Your task to perform on an android device: Clear the shopping cart on newegg. Add logitech g pro to the cart on newegg, then select checkout. Image 0: 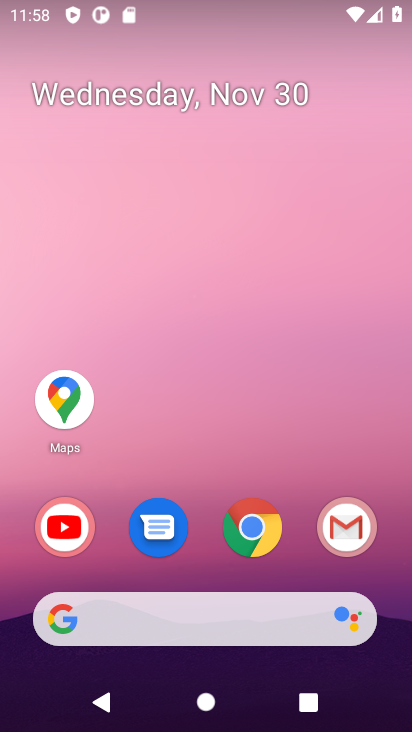
Step 0: click (254, 530)
Your task to perform on an android device: Clear the shopping cart on newegg. Add logitech g pro to the cart on newegg, then select checkout. Image 1: 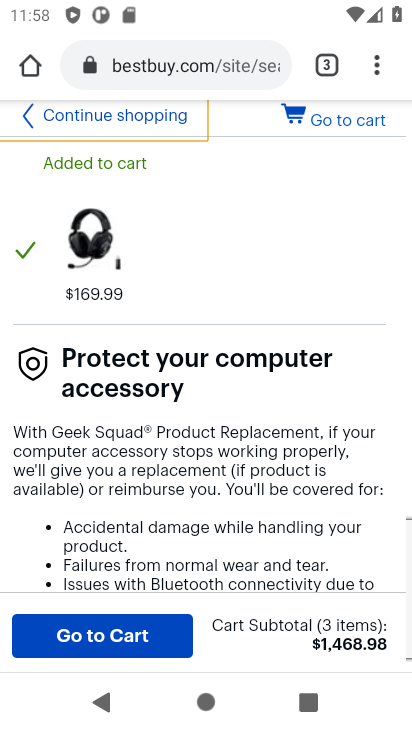
Step 1: click (190, 67)
Your task to perform on an android device: Clear the shopping cart on newegg. Add logitech g pro to the cart on newegg, then select checkout. Image 2: 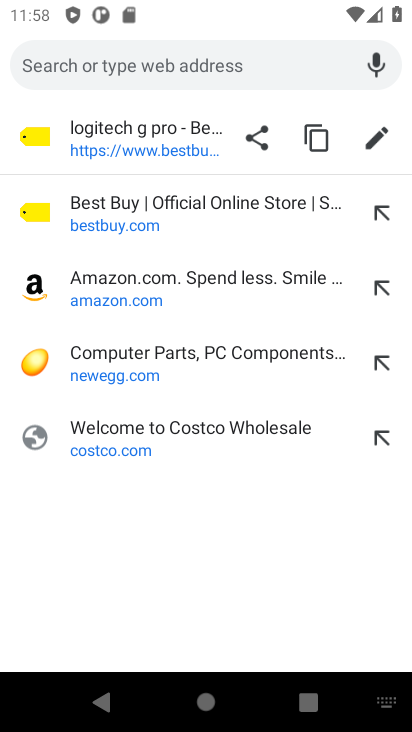
Step 2: click (100, 369)
Your task to perform on an android device: Clear the shopping cart on newegg. Add logitech g pro to the cart on newegg, then select checkout. Image 3: 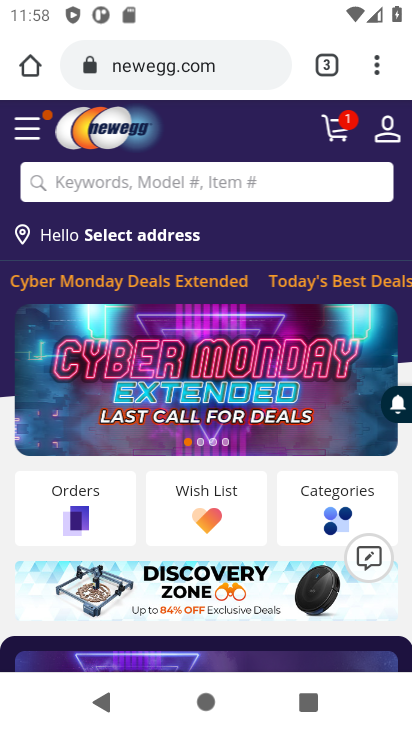
Step 3: click (343, 127)
Your task to perform on an android device: Clear the shopping cart on newegg. Add logitech g pro to the cart on newegg, then select checkout. Image 4: 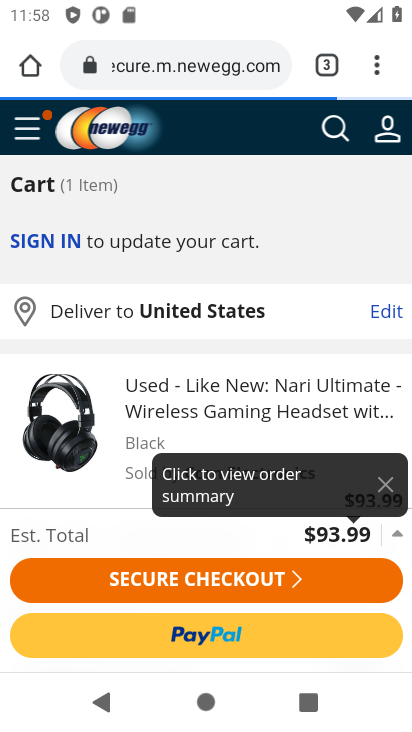
Step 4: drag from (259, 363) to (257, 199)
Your task to perform on an android device: Clear the shopping cart on newegg. Add logitech g pro to the cart on newegg, then select checkout. Image 5: 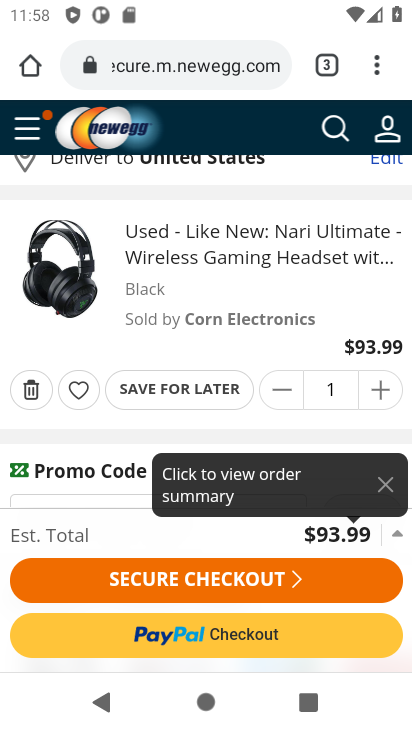
Step 5: click (22, 397)
Your task to perform on an android device: Clear the shopping cart on newegg. Add logitech g pro to the cart on newegg, then select checkout. Image 6: 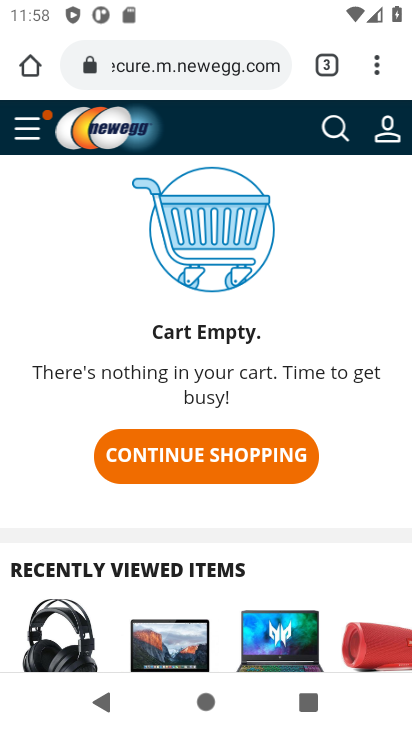
Step 6: click (334, 126)
Your task to perform on an android device: Clear the shopping cart on newegg. Add logitech g pro to the cart on newegg, then select checkout. Image 7: 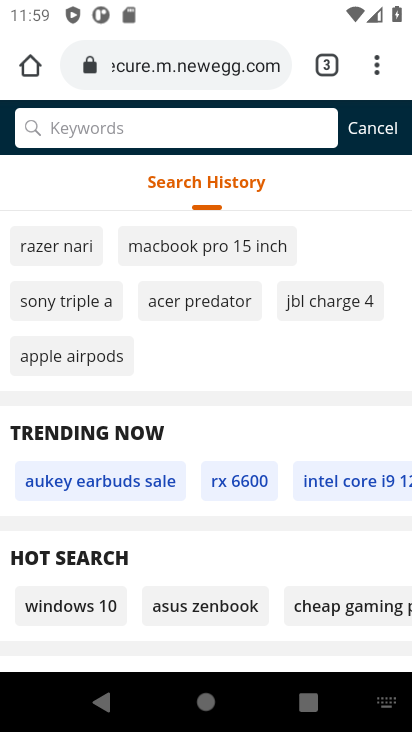
Step 7: type " logitech g pro"
Your task to perform on an android device: Clear the shopping cart on newegg. Add logitech g pro to the cart on newegg, then select checkout. Image 8: 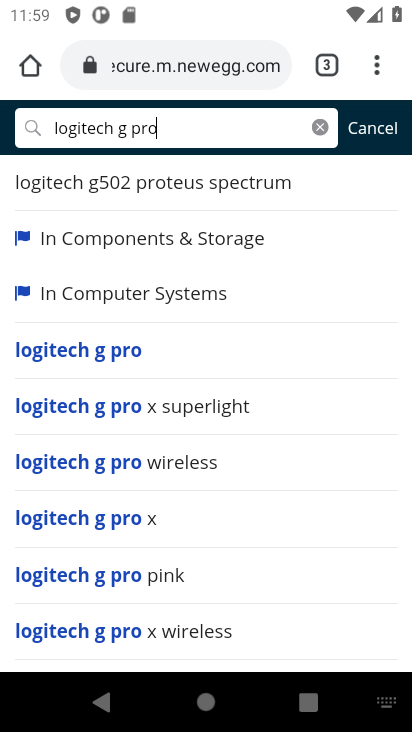
Step 8: click (123, 346)
Your task to perform on an android device: Clear the shopping cart on newegg. Add logitech g pro to the cart on newegg, then select checkout. Image 9: 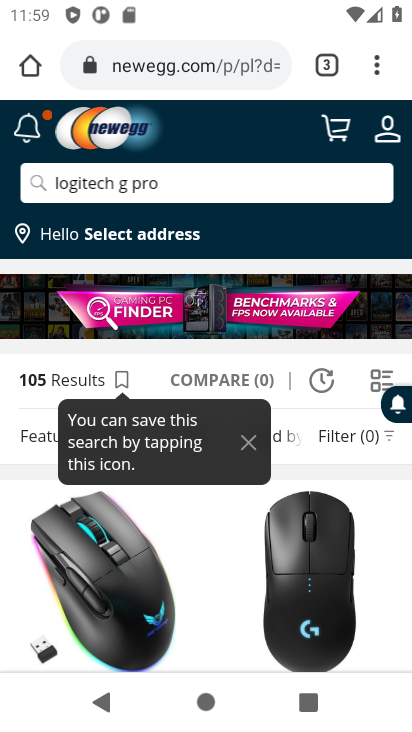
Step 9: drag from (207, 574) to (178, 335)
Your task to perform on an android device: Clear the shopping cart on newegg. Add logitech g pro to the cart on newegg, then select checkout. Image 10: 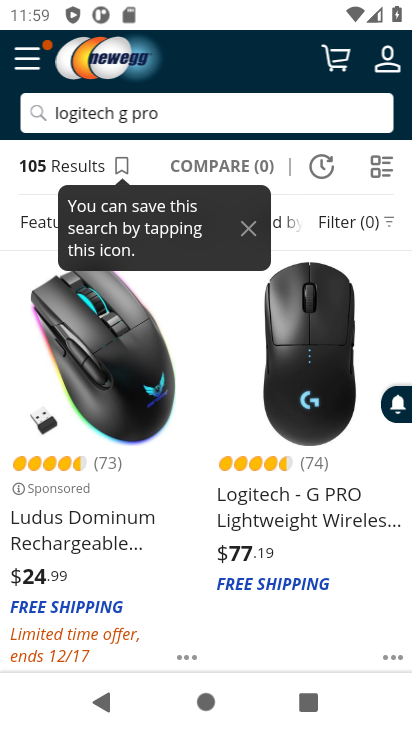
Step 10: click (330, 410)
Your task to perform on an android device: Clear the shopping cart on newegg. Add logitech g pro to the cart on newegg, then select checkout. Image 11: 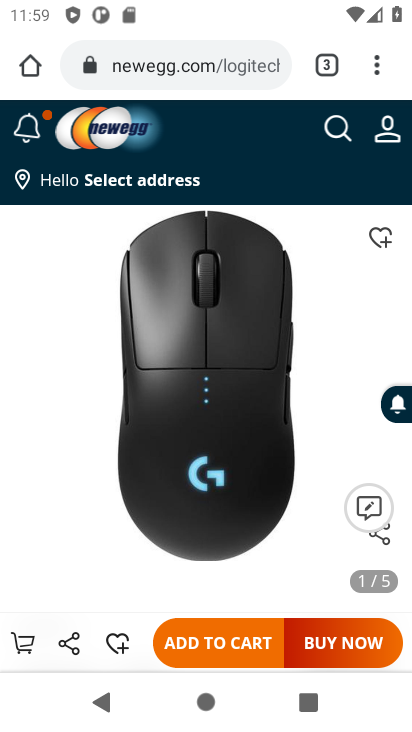
Step 11: click (214, 645)
Your task to perform on an android device: Clear the shopping cart on newegg. Add logitech g pro to the cart on newegg, then select checkout. Image 12: 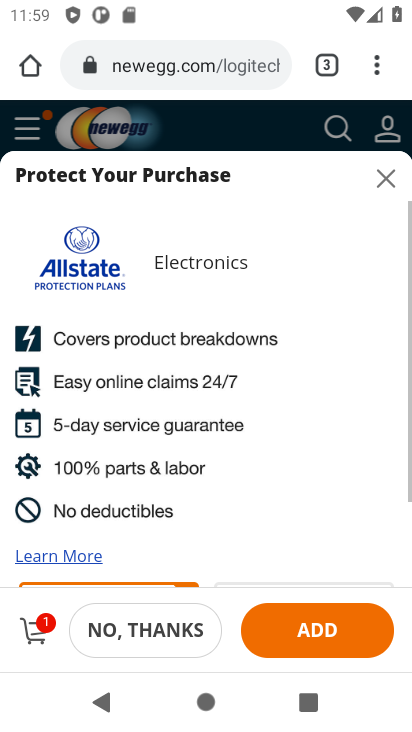
Step 12: click (41, 627)
Your task to perform on an android device: Clear the shopping cart on newegg. Add logitech g pro to the cart on newegg, then select checkout. Image 13: 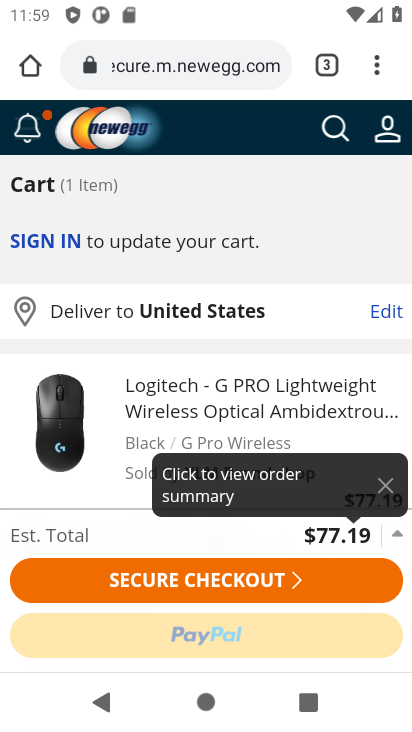
Step 13: click (202, 588)
Your task to perform on an android device: Clear the shopping cart on newegg. Add logitech g pro to the cart on newegg, then select checkout. Image 14: 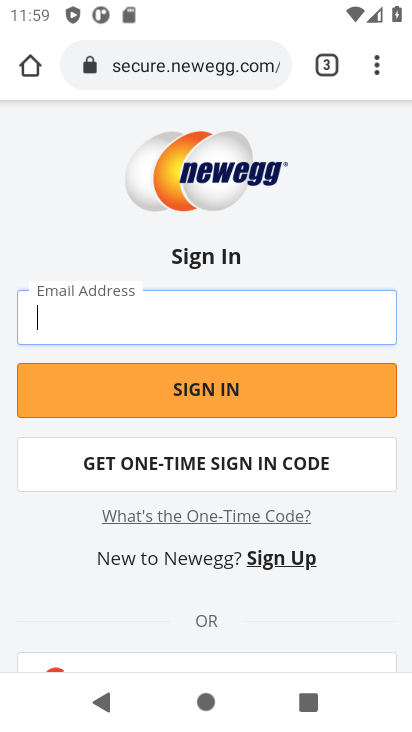
Step 14: task complete